Your task to perform on an android device: toggle data saver in the chrome app Image 0: 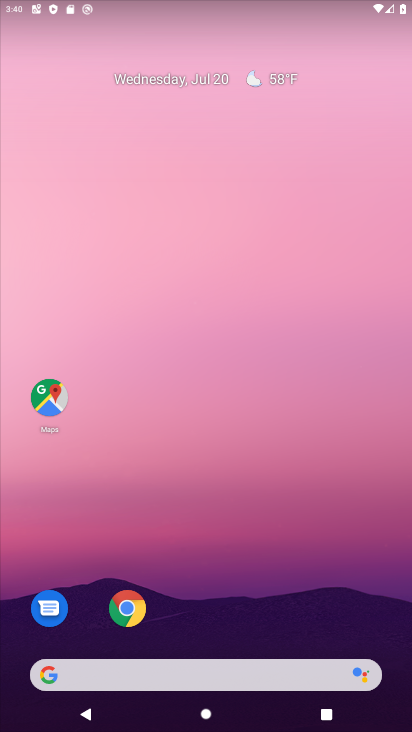
Step 0: click (148, 604)
Your task to perform on an android device: toggle data saver in the chrome app Image 1: 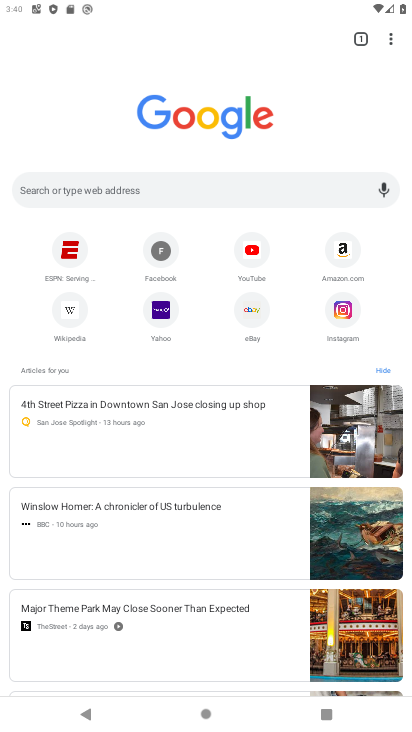
Step 1: click (383, 32)
Your task to perform on an android device: toggle data saver in the chrome app Image 2: 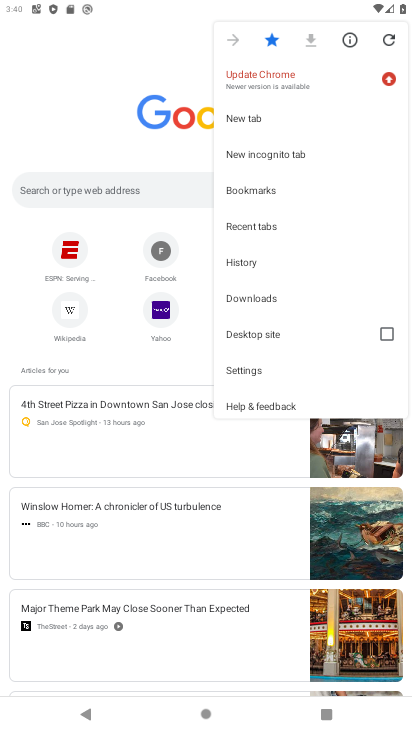
Step 2: click (246, 360)
Your task to perform on an android device: toggle data saver in the chrome app Image 3: 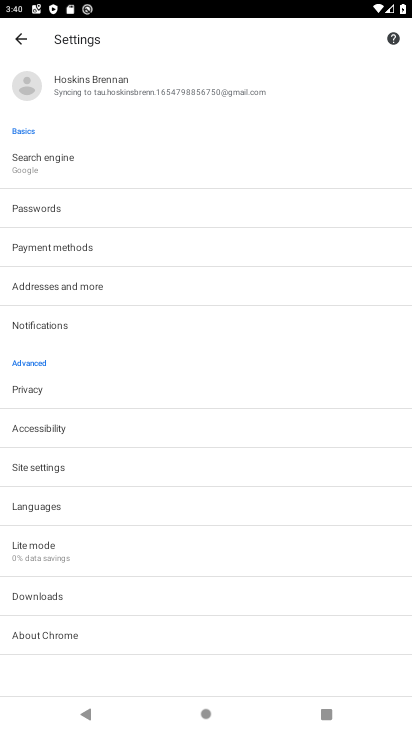
Step 3: click (93, 537)
Your task to perform on an android device: toggle data saver in the chrome app Image 4: 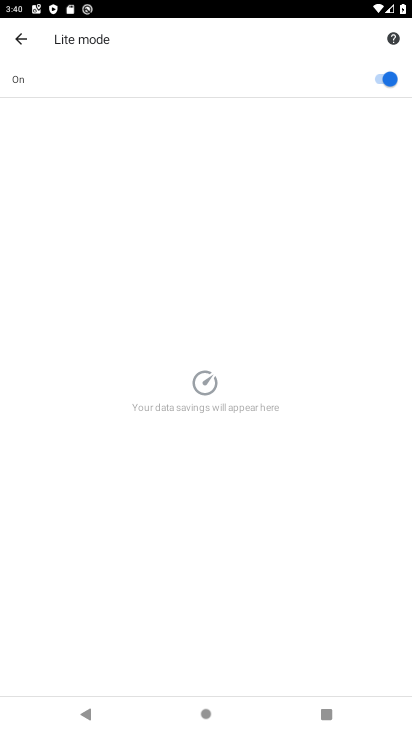
Step 4: click (373, 60)
Your task to perform on an android device: toggle data saver in the chrome app Image 5: 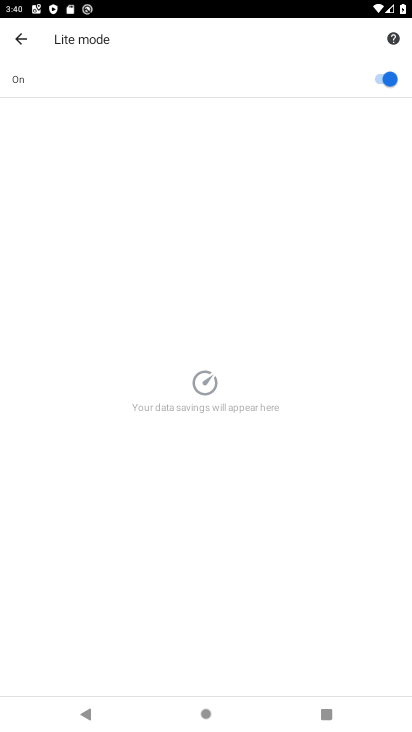
Step 5: task complete